Your task to perform on an android device: turn off wifi Image 0: 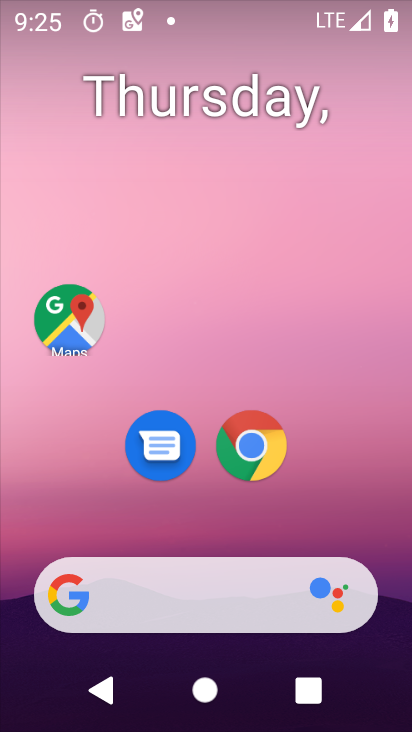
Step 0: drag from (204, 533) to (207, 208)
Your task to perform on an android device: turn off wifi Image 1: 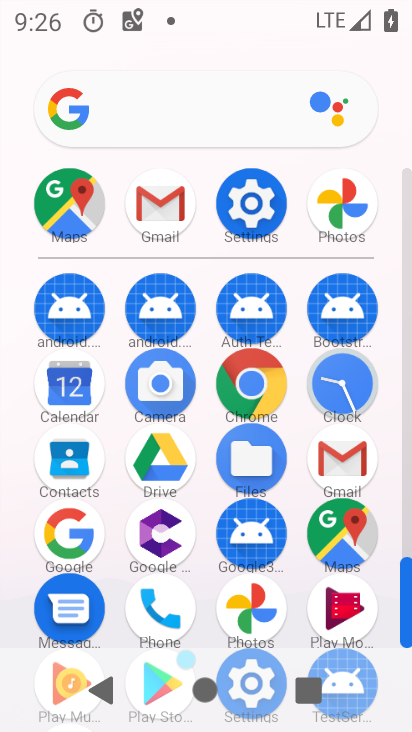
Step 1: click (246, 219)
Your task to perform on an android device: turn off wifi Image 2: 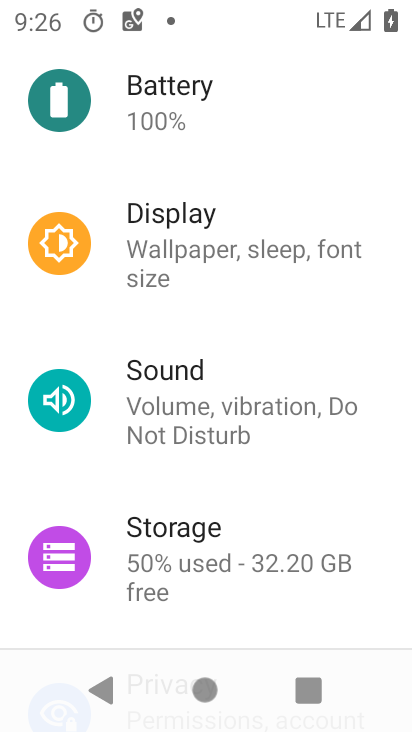
Step 2: drag from (216, 166) to (301, 698)
Your task to perform on an android device: turn off wifi Image 3: 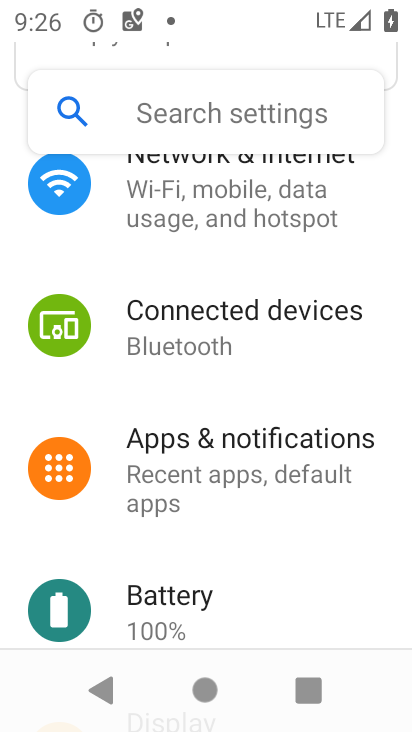
Step 3: drag from (222, 246) to (247, 588)
Your task to perform on an android device: turn off wifi Image 4: 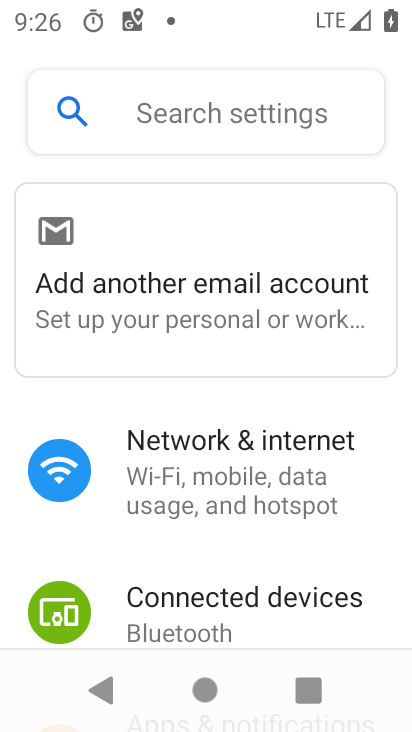
Step 4: click (229, 468)
Your task to perform on an android device: turn off wifi Image 5: 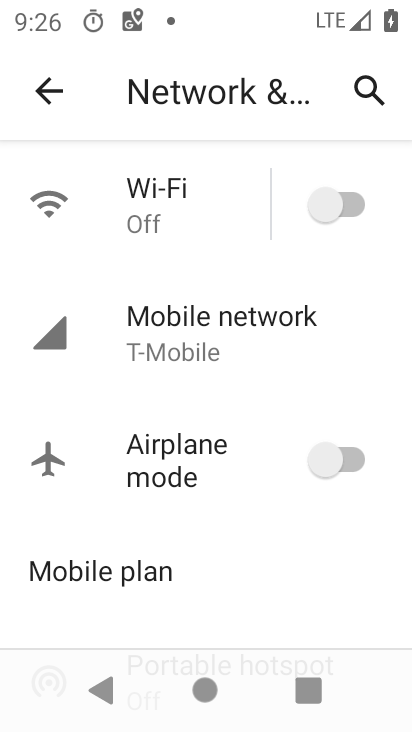
Step 5: click (181, 221)
Your task to perform on an android device: turn off wifi Image 6: 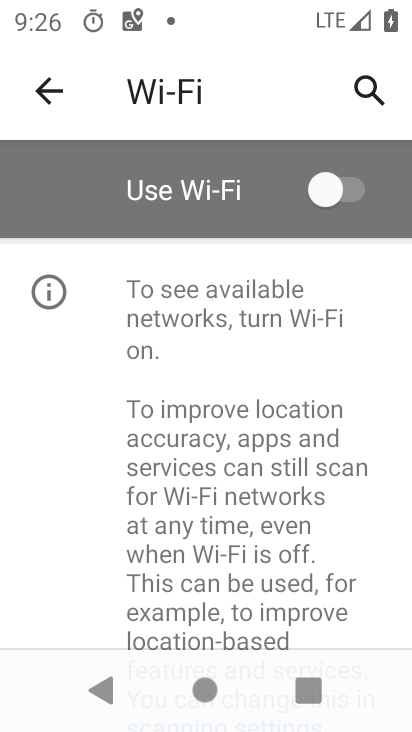
Step 6: task complete